Your task to perform on an android device: change the clock display to analog Image 0: 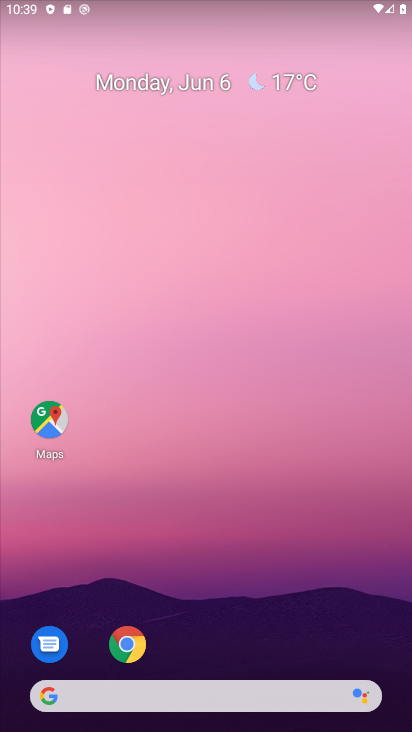
Step 0: drag from (312, 613) to (310, 171)
Your task to perform on an android device: change the clock display to analog Image 1: 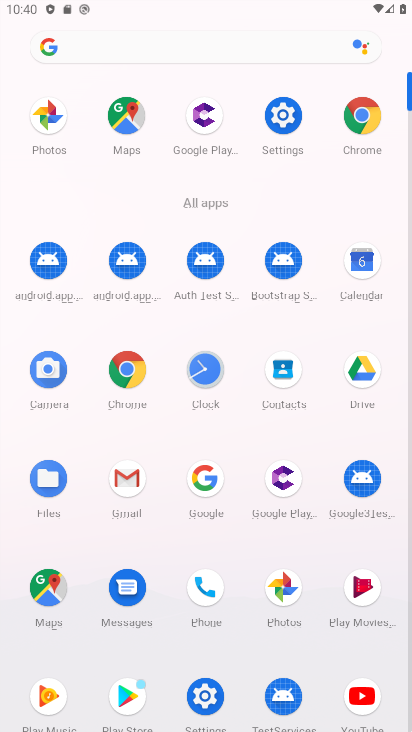
Step 1: click (194, 357)
Your task to perform on an android device: change the clock display to analog Image 2: 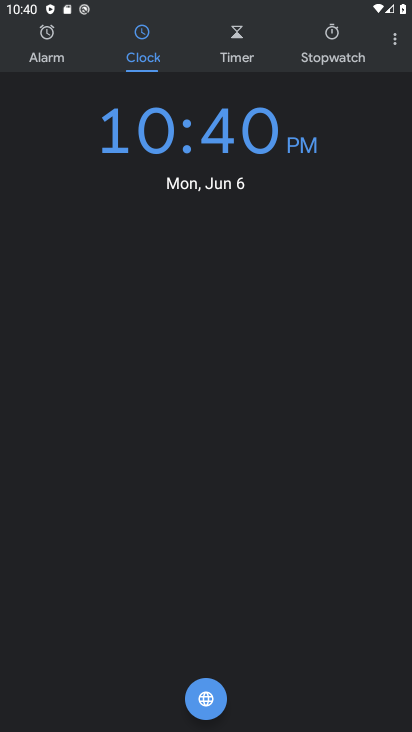
Step 2: click (400, 42)
Your task to perform on an android device: change the clock display to analog Image 3: 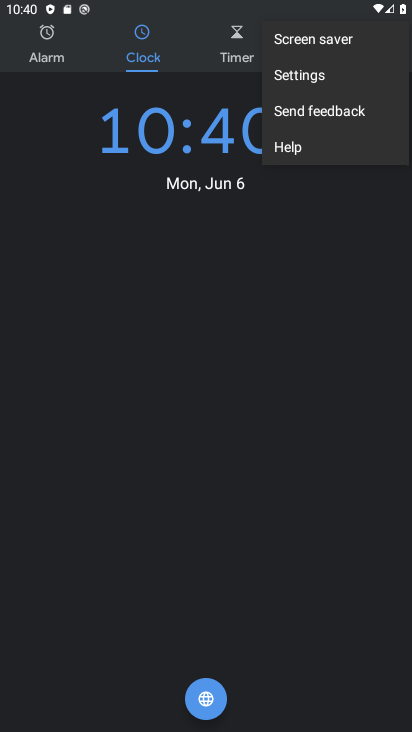
Step 3: click (289, 77)
Your task to perform on an android device: change the clock display to analog Image 4: 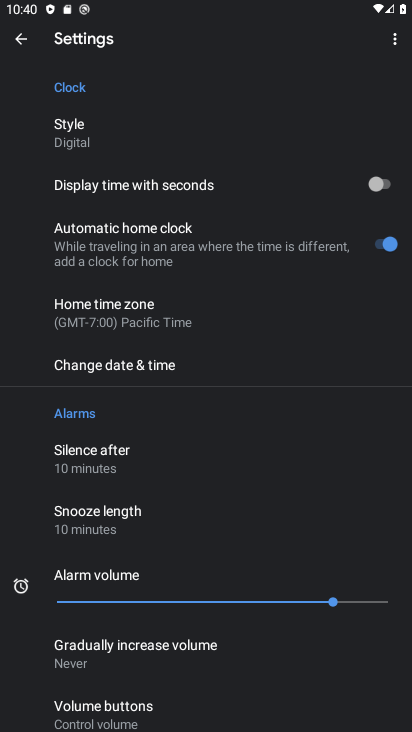
Step 4: click (100, 124)
Your task to perform on an android device: change the clock display to analog Image 5: 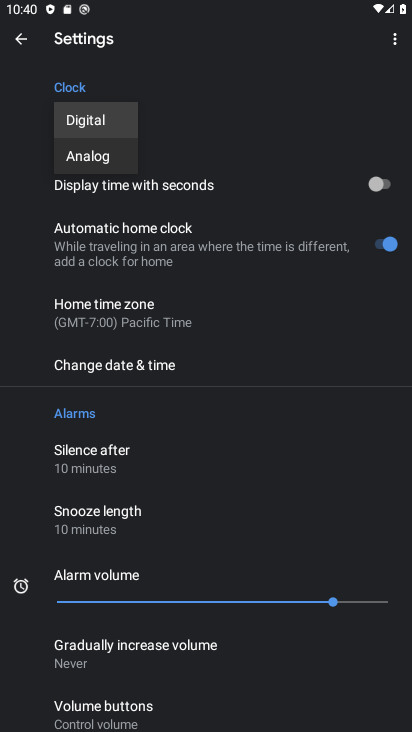
Step 5: click (112, 174)
Your task to perform on an android device: change the clock display to analog Image 6: 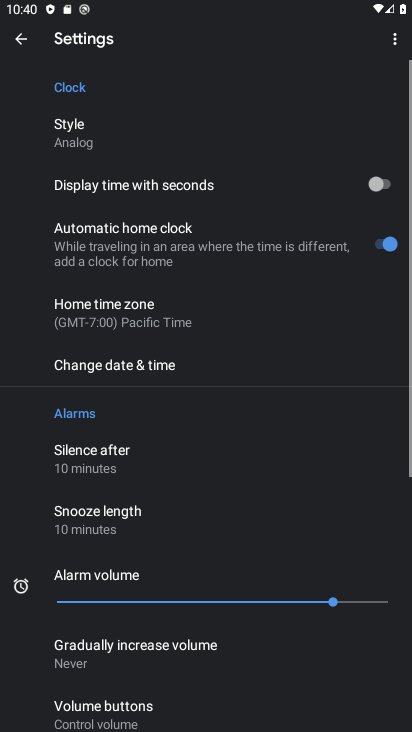
Step 6: task complete